Your task to perform on an android device: change the clock display to digital Image 0: 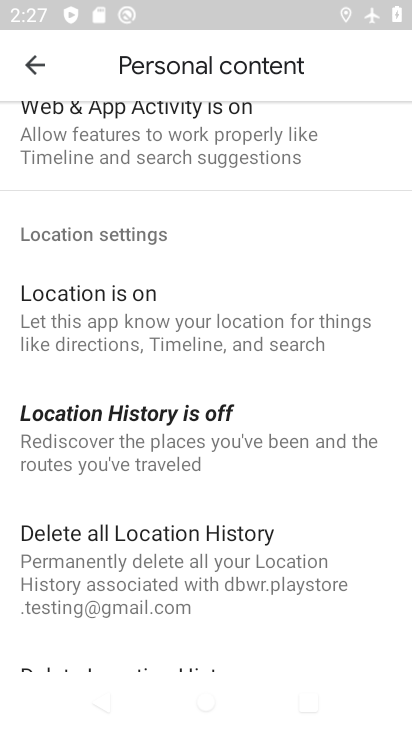
Step 0: press home button
Your task to perform on an android device: change the clock display to digital Image 1: 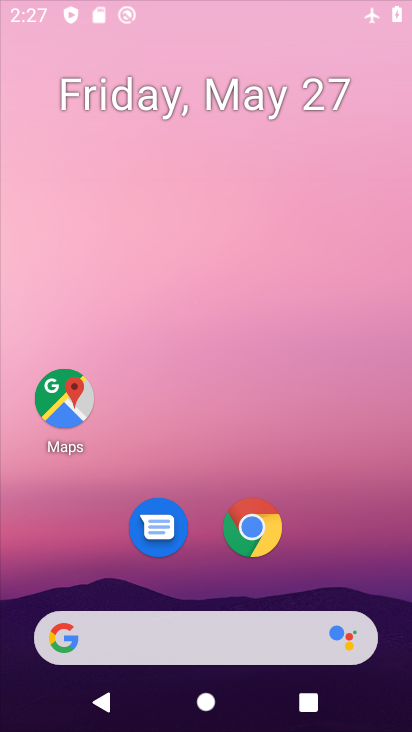
Step 1: press home button
Your task to perform on an android device: change the clock display to digital Image 2: 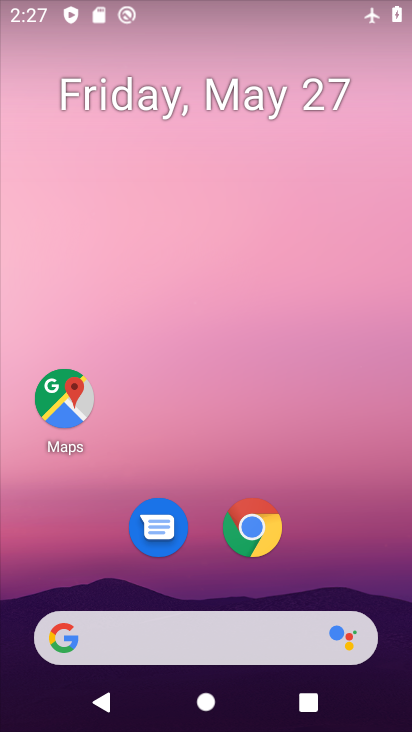
Step 2: drag from (240, 589) to (320, 115)
Your task to perform on an android device: change the clock display to digital Image 3: 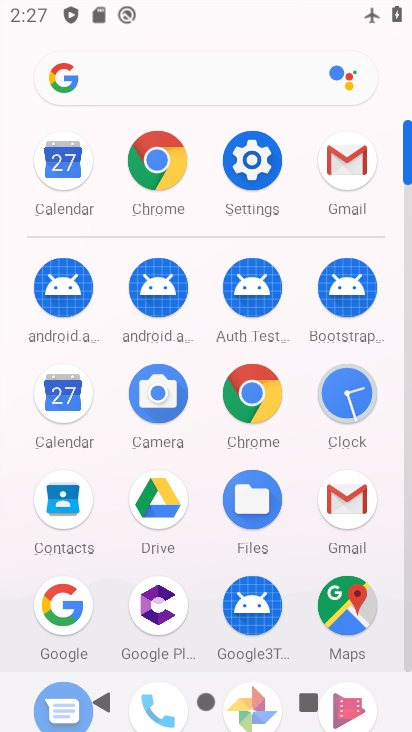
Step 3: click (353, 417)
Your task to perform on an android device: change the clock display to digital Image 4: 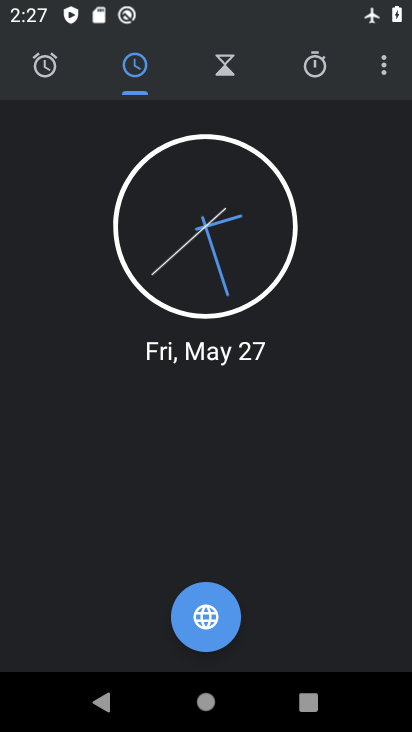
Step 4: click (378, 69)
Your task to perform on an android device: change the clock display to digital Image 5: 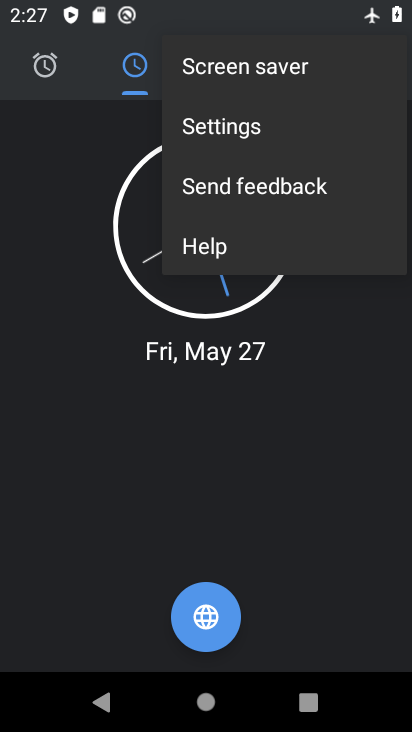
Step 5: click (243, 126)
Your task to perform on an android device: change the clock display to digital Image 6: 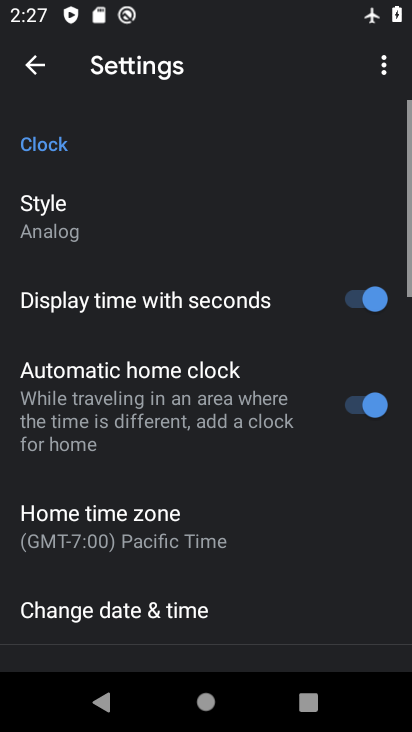
Step 6: click (49, 222)
Your task to perform on an android device: change the clock display to digital Image 7: 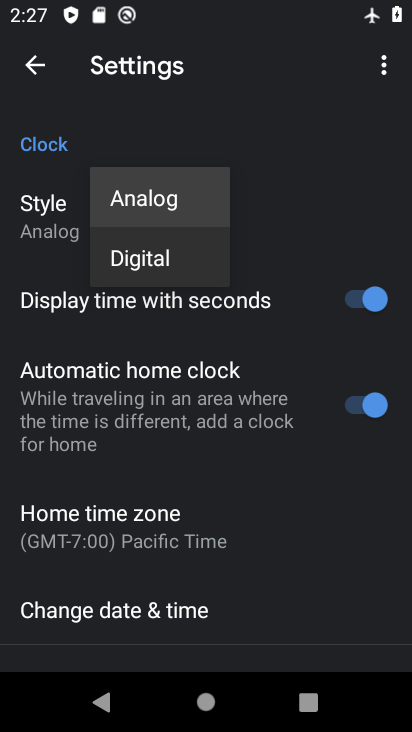
Step 7: click (153, 254)
Your task to perform on an android device: change the clock display to digital Image 8: 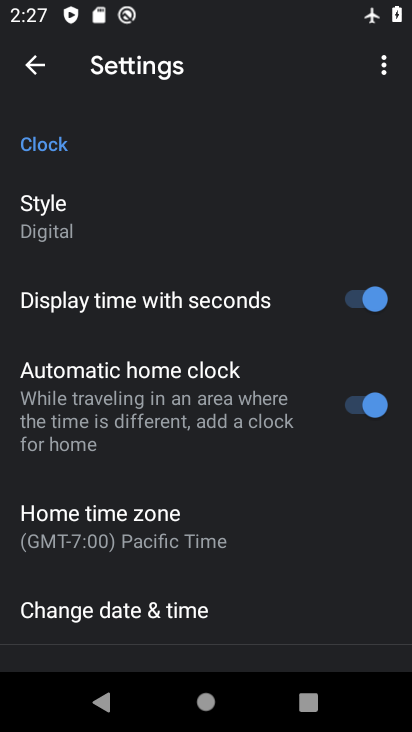
Step 8: task complete